Your task to perform on an android device: toggle translation in the chrome app Image 0: 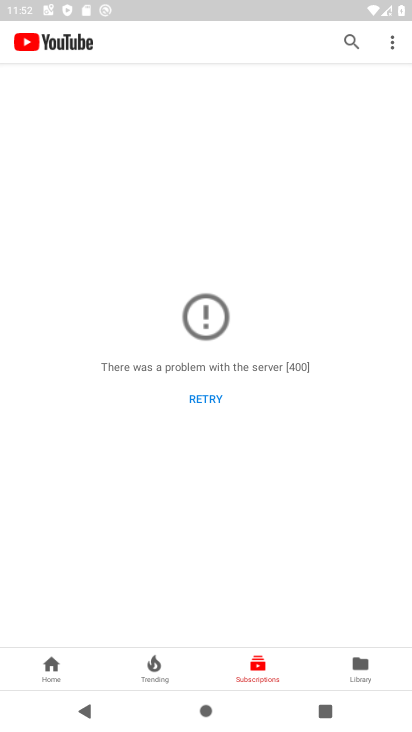
Step 0: press home button
Your task to perform on an android device: toggle translation in the chrome app Image 1: 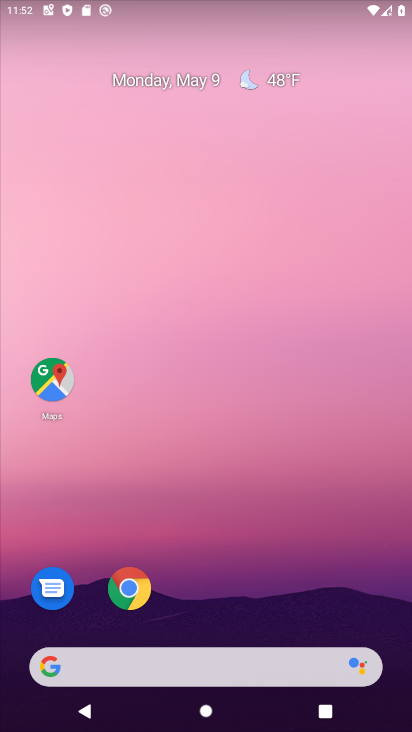
Step 1: click (117, 581)
Your task to perform on an android device: toggle translation in the chrome app Image 2: 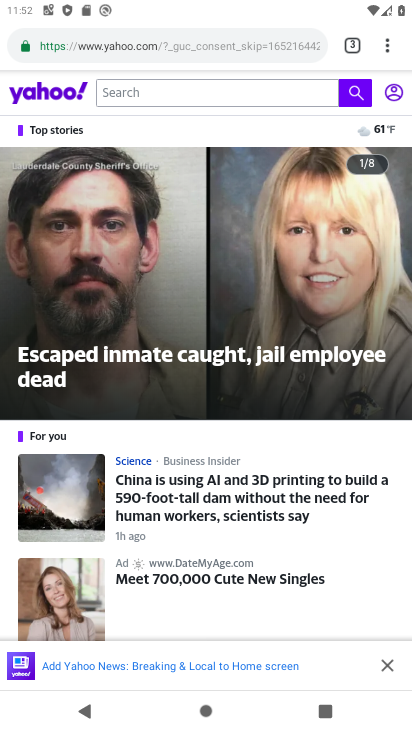
Step 2: click (368, 45)
Your task to perform on an android device: toggle translation in the chrome app Image 3: 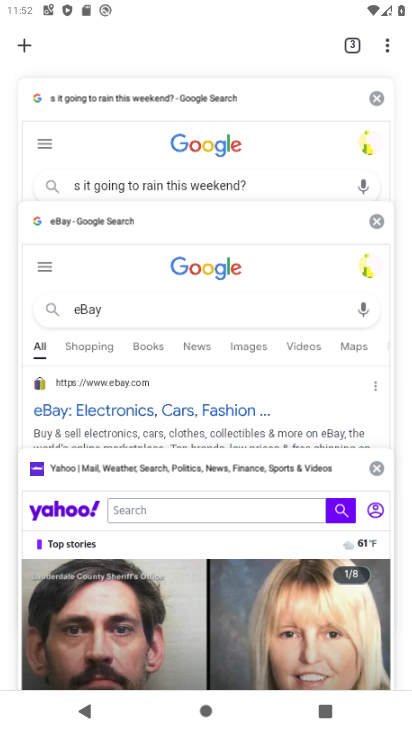
Step 3: click (375, 49)
Your task to perform on an android device: toggle translation in the chrome app Image 4: 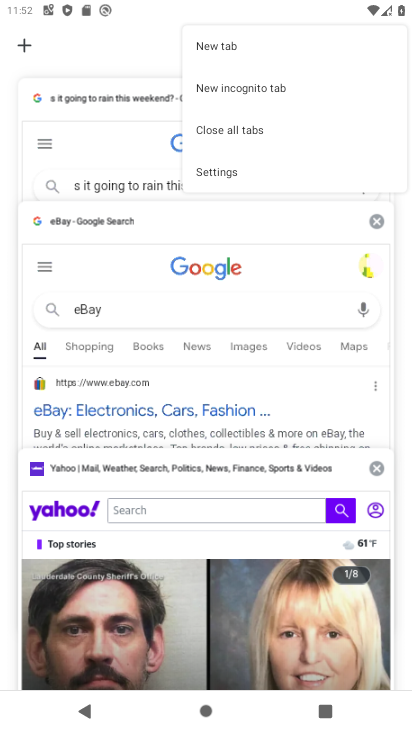
Step 4: click (245, 155)
Your task to perform on an android device: toggle translation in the chrome app Image 5: 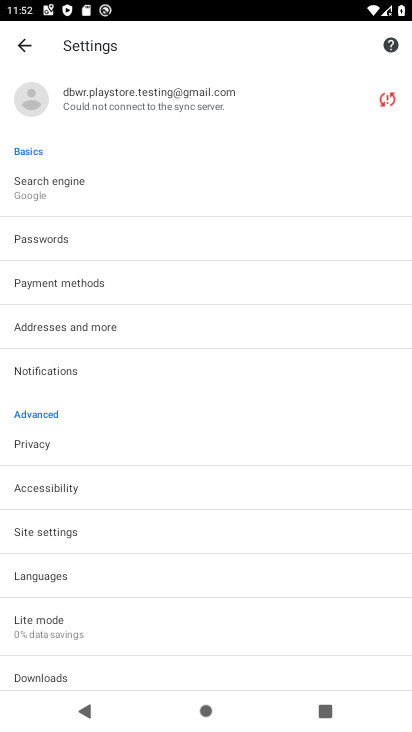
Step 5: click (101, 586)
Your task to perform on an android device: toggle translation in the chrome app Image 6: 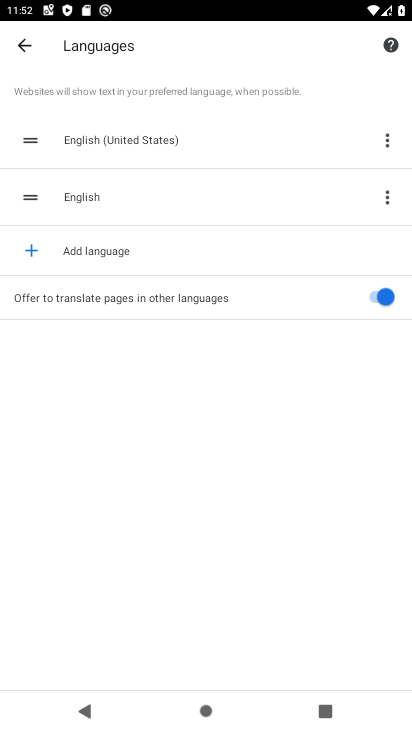
Step 6: click (367, 293)
Your task to perform on an android device: toggle translation in the chrome app Image 7: 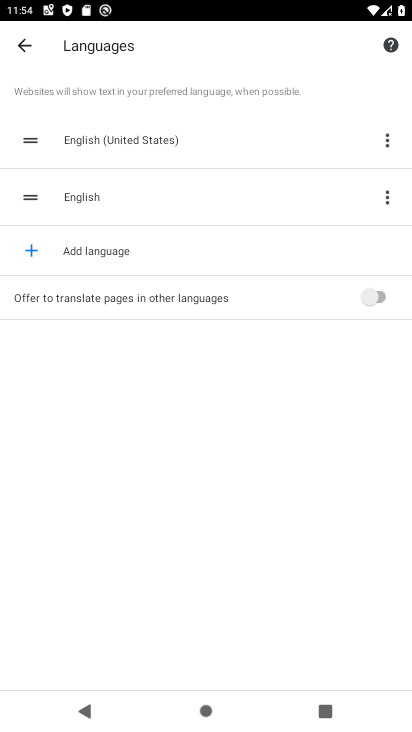
Step 7: task complete